Your task to perform on an android device: Go to sound settings Image 0: 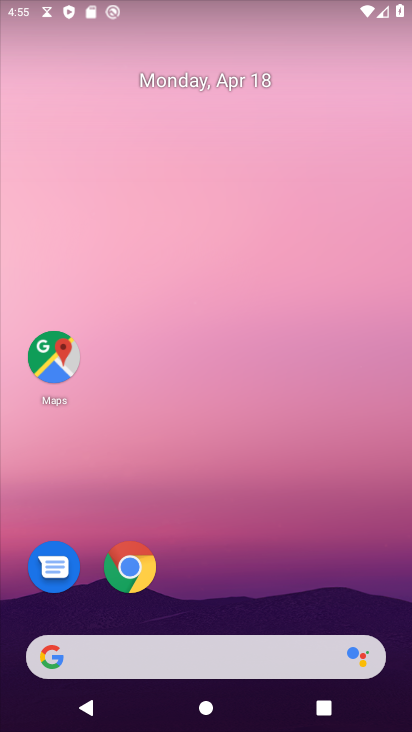
Step 0: drag from (250, 600) to (308, 65)
Your task to perform on an android device: Go to sound settings Image 1: 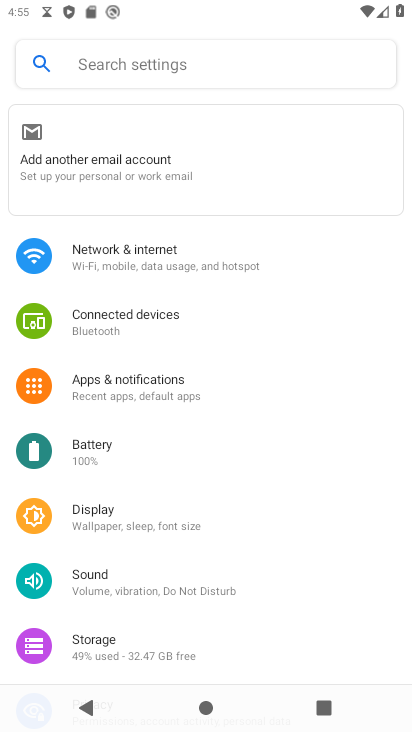
Step 1: click (126, 578)
Your task to perform on an android device: Go to sound settings Image 2: 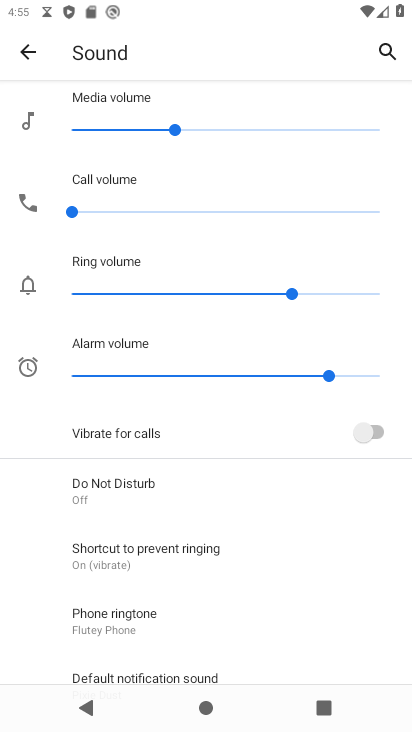
Step 2: task complete